Your task to perform on an android device: toggle priority inbox in the gmail app Image 0: 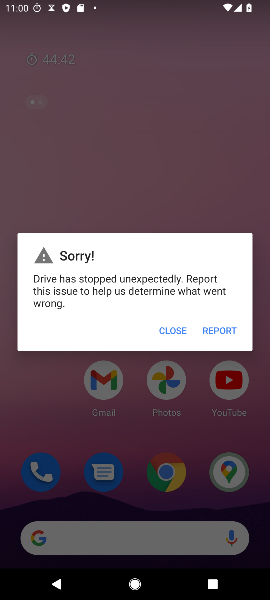
Step 0: click (174, 338)
Your task to perform on an android device: toggle priority inbox in the gmail app Image 1: 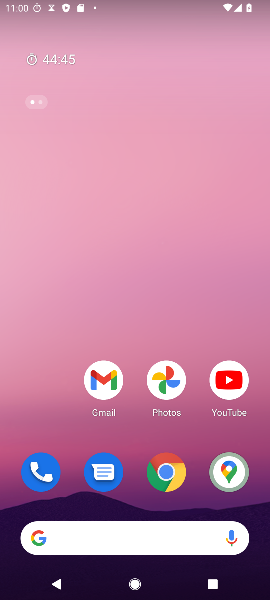
Step 1: drag from (138, 452) to (106, 71)
Your task to perform on an android device: toggle priority inbox in the gmail app Image 2: 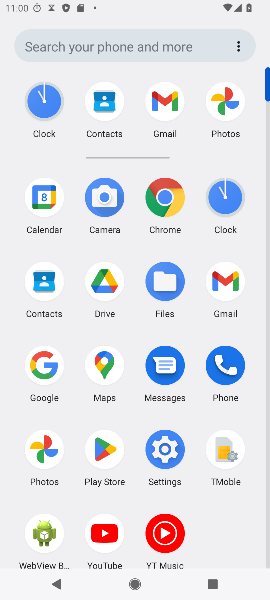
Step 2: click (175, 106)
Your task to perform on an android device: toggle priority inbox in the gmail app Image 3: 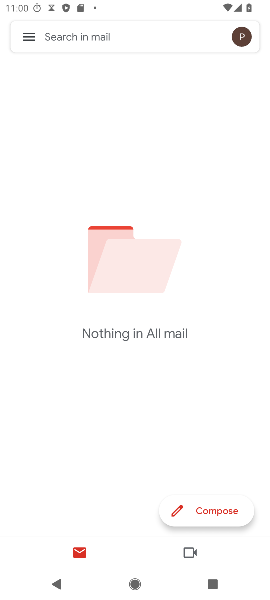
Step 3: click (34, 41)
Your task to perform on an android device: toggle priority inbox in the gmail app Image 4: 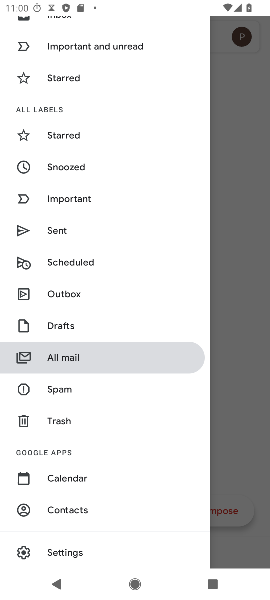
Step 4: drag from (121, 538) to (116, 207)
Your task to perform on an android device: toggle priority inbox in the gmail app Image 5: 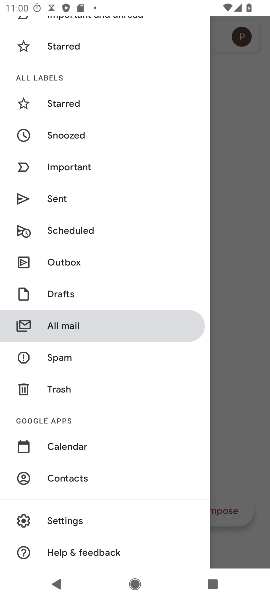
Step 5: click (92, 521)
Your task to perform on an android device: toggle priority inbox in the gmail app Image 6: 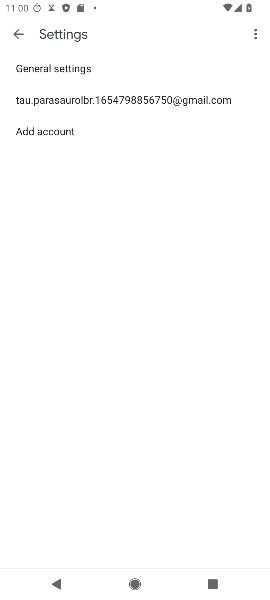
Step 6: click (92, 101)
Your task to perform on an android device: toggle priority inbox in the gmail app Image 7: 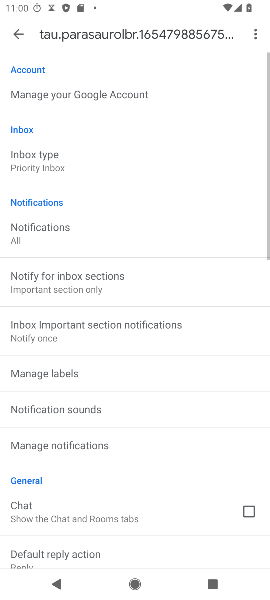
Step 7: drag from (119, 549) to (157, 546)
Your task to perform on an android device: toggle priority inbox in the gmail app Image 8: 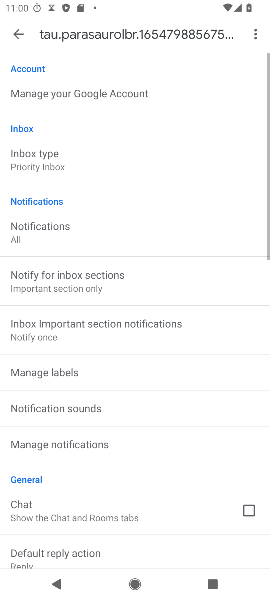
Step 8: click (113, 174)
Your task to perform on an android device: toggle priority inbox in the gmail app Image 9: 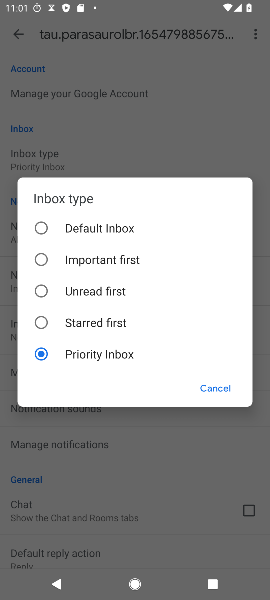
Step 9: click (112, 229)
Your task to perform on an android device: toggle priority inbox in the gmail app Image 10: 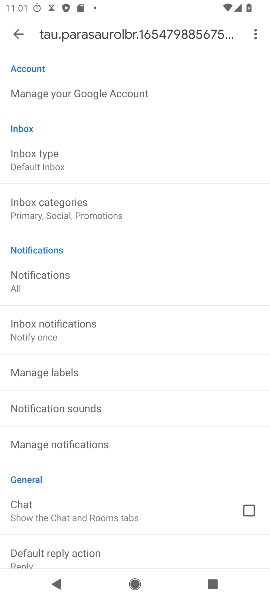
Step 10: task complete